Your task to perform on an android device: Show me the alarms in the clock app Image 0: 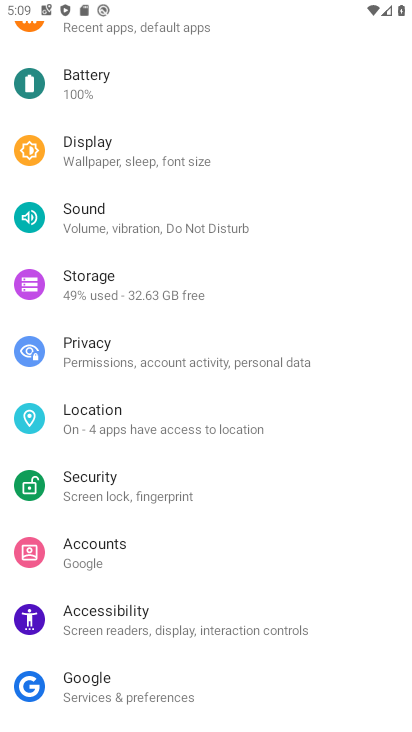
Step 0: press home button
Your task to perform on an android device: Show me the alarms in the clock app Image 1: 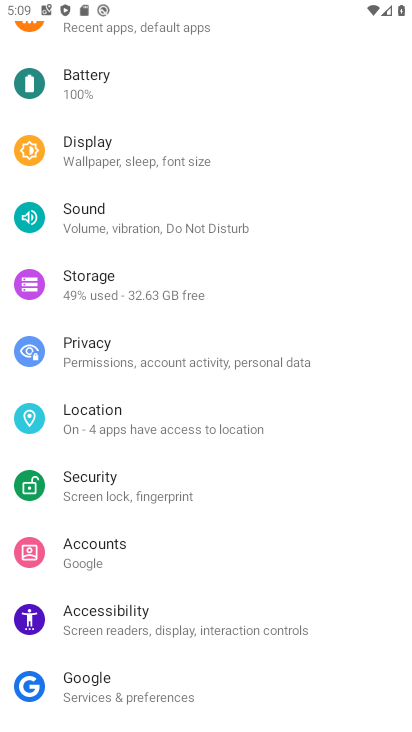
Step 1: press home button
Your task to perform on an android device: Show me the alarms in the clock app Image 2: 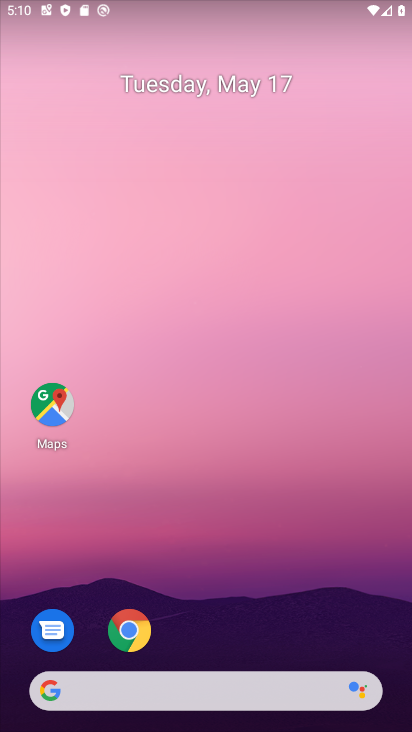
Step 2: drag from (267, 608) to (295, 198)
Your task to perform on an android device: Show me the alarms in the clock app Image 3: 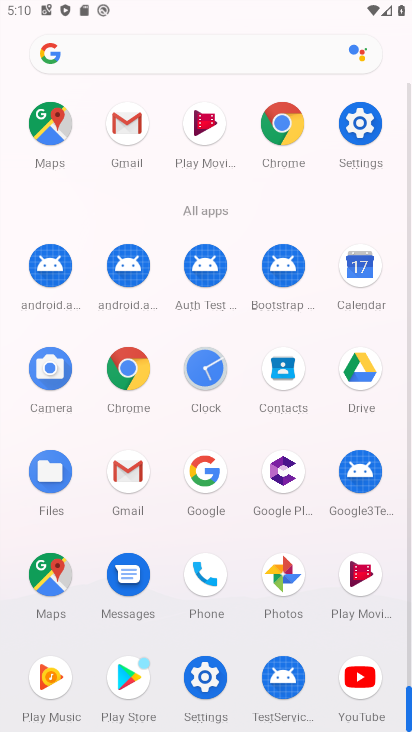
Step 3: click (208, 368)
Your task to perform on an android device: Show me the alarms in the clock app Image 4: 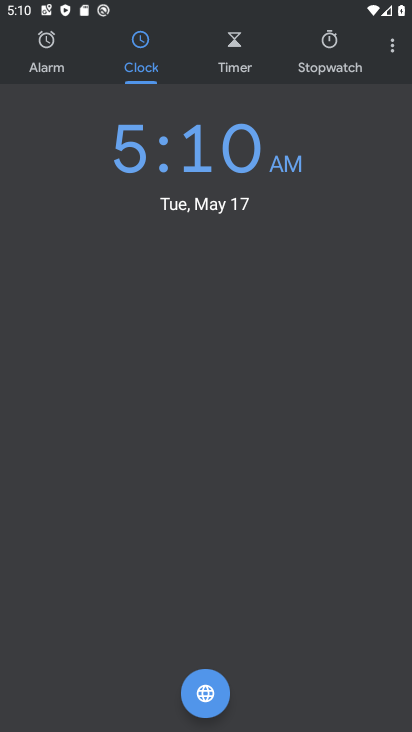
Step 4: drag from (395, 40) to (232, 514)
Your task to perform on an android device: Show me the alarms in the clock app Image 5: 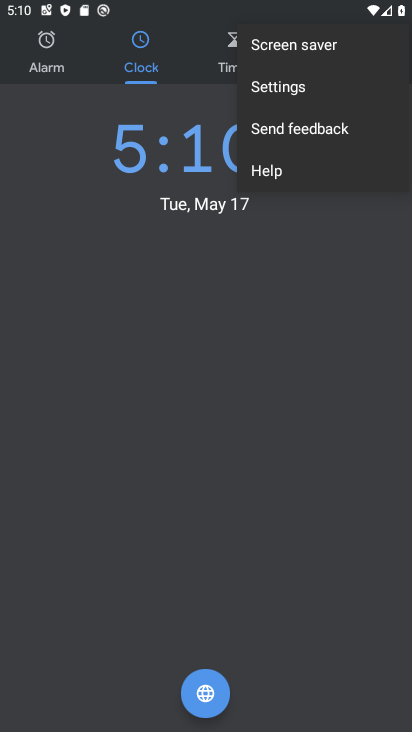
Step 5: click (231, 509)
Your task to perform on an android device: Show me the alarms in the clock app Image 6: 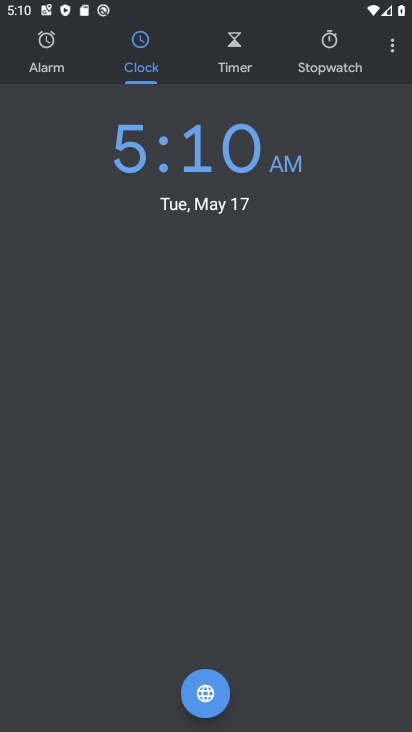
Step 6: click (54, 63)
Your task to perform on an android device: Show me the alarms in the clock app Image 7: 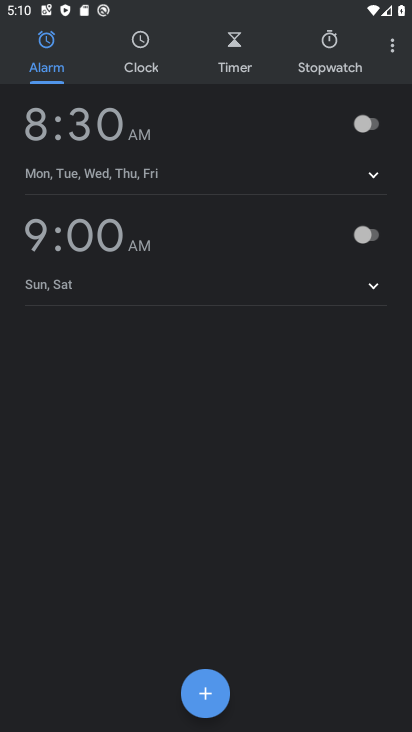
Step 7: task complete